Your task to perform on an android device: change text size in settings app Image 0: 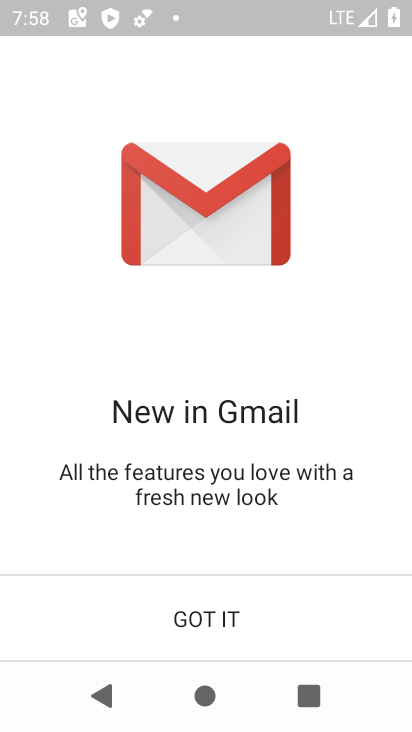
Step 0: click (230, 624)
Your task to perform on an android device: change text size in settings app Image 1: 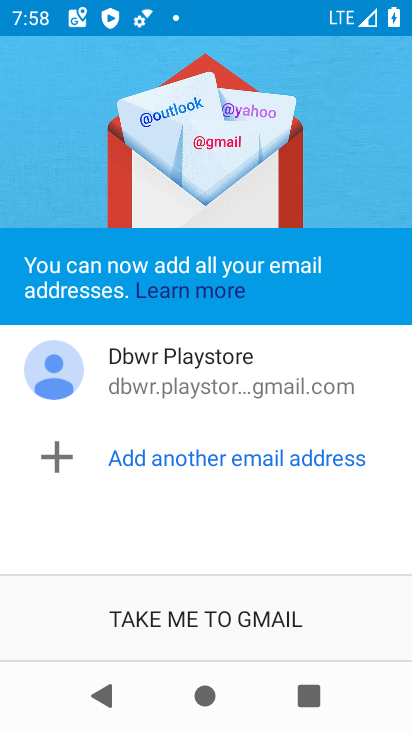
Step 1: press home button
Your task to perform on an android device: change text size in settings app Image 2: 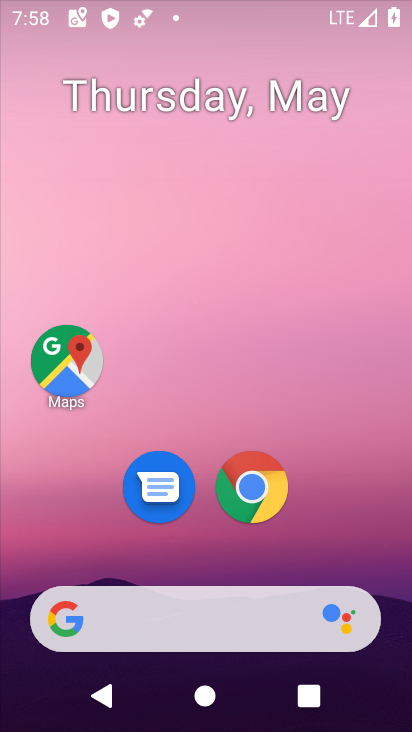
Step 2: drag from (198, 574) to (217, 323)
Your task to perform on an android device: change text size in settings app Image 3: 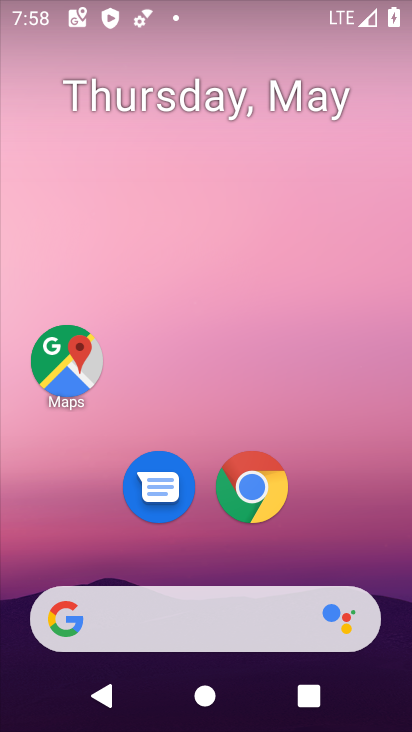
Step 3: drag from (198, 568) to (182, 159)
Your task to perform on an android device: change text size in settings app Image 4: 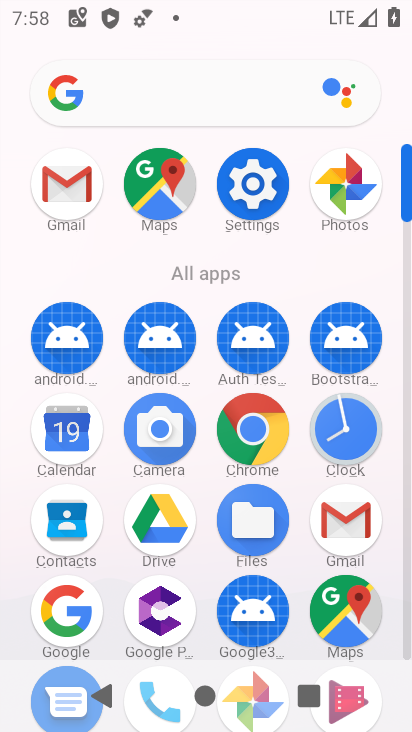
Step 4: click (256, 174)
Your task to perform on an android device: change text size in settings app Image 5: 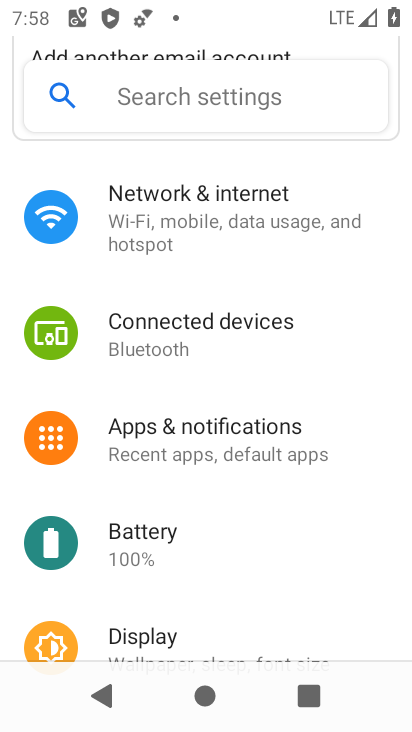
Step 5: drag from (248, 515) to (284, 286)
Your task to perform on an android device: change text size in settings app Image 6: 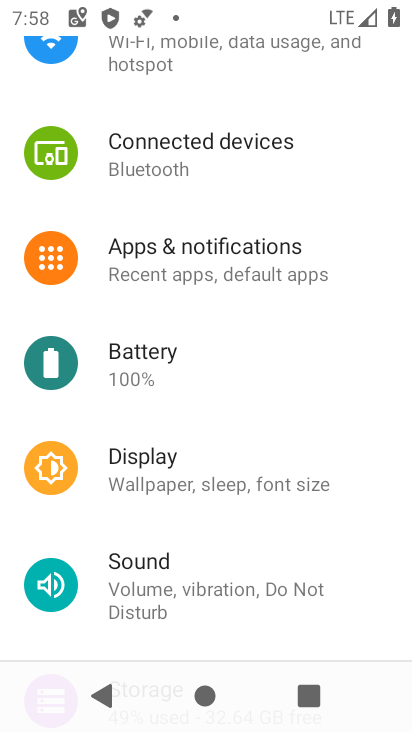
Step 6: click (157, 485)
Your task to perform on an android device: change text size in settings app Image 7: 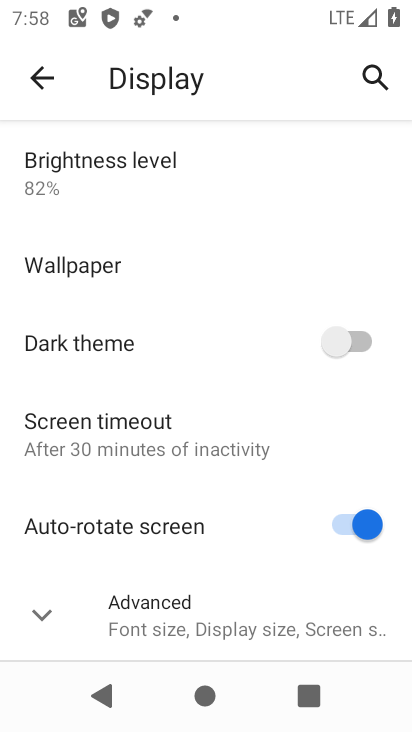
Step 7: drag from (156, 496) to (209, 220)
Your task to perform on an android device: change text size in settings app Image 8: 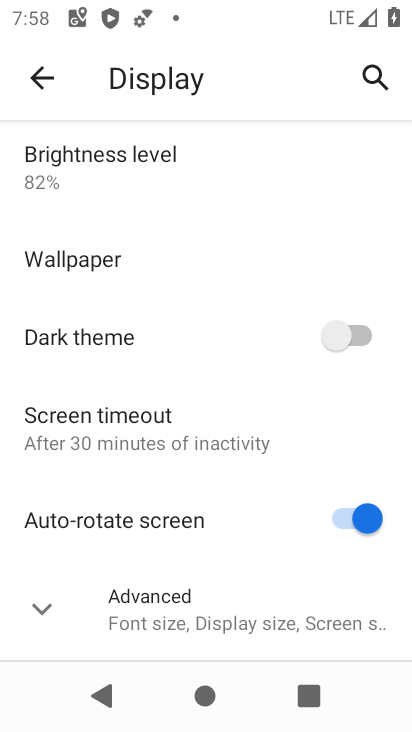
Step 8: click (188, 627)
Your task to perform on an android device: change text size in settings app Image 9: 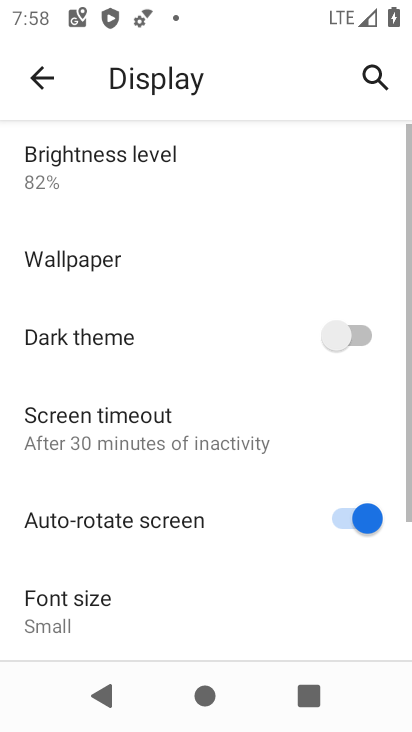
Step 9: drag from (187, 586) to (301, 116)
Your task to perform on an android device: change text size in settings app Image 10: 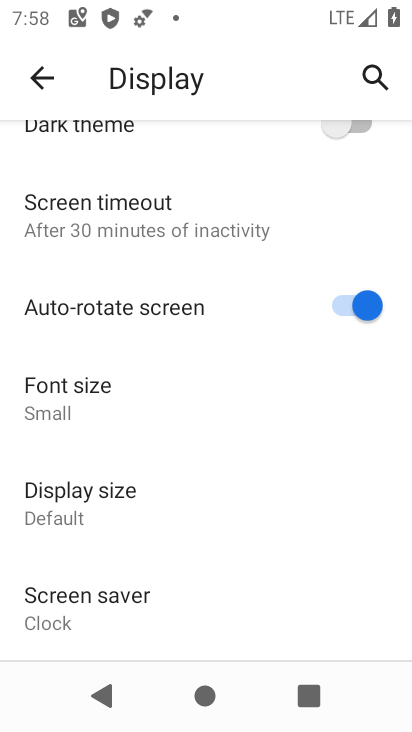
Step 10: click (159, 401)
Your task to perform on an android device: change text size in settings app Image 11: 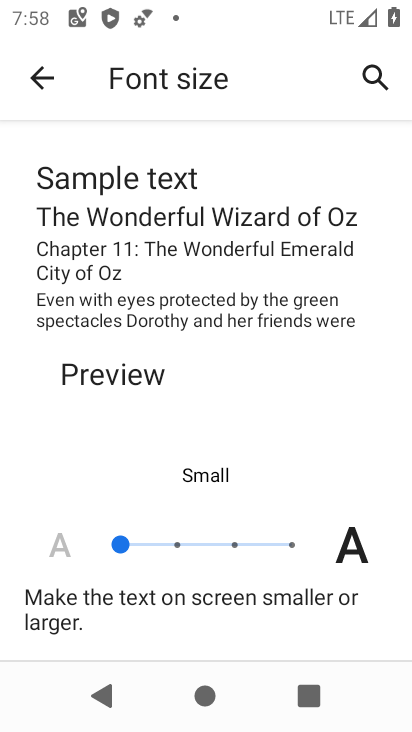
Step 11: drag from (242, 466) to (271, 164)
Your task to perform on an android device: change text size in settings app Image 12: 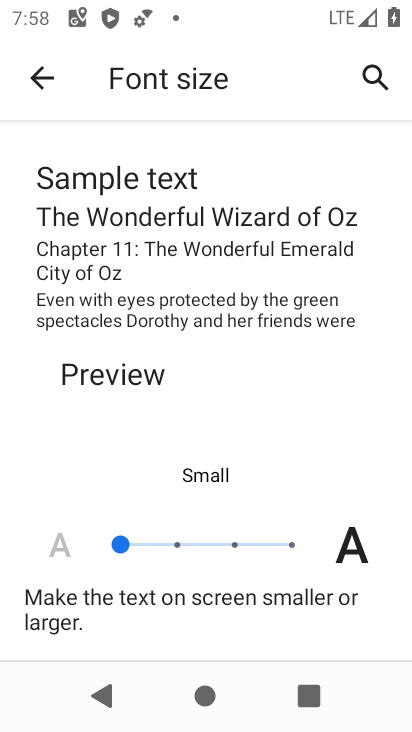
Step 12: click (165, 541)
Your task to perform on an android device: change text size in settings app Image 13: 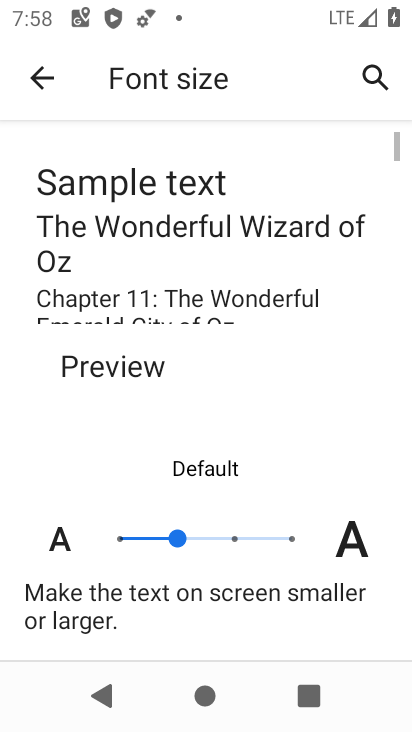
Step 13: task complete